Your task to perform on an android device: toggle sleep mode Image 0: 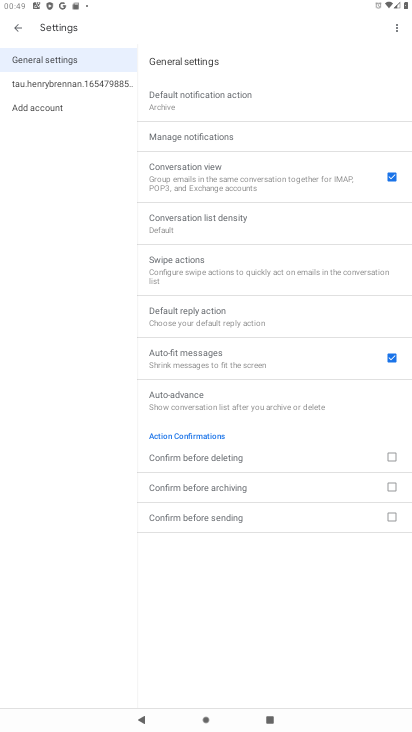
Step 0: press home button
Your task to perform on an android device: toggle sleep mode Image 1: 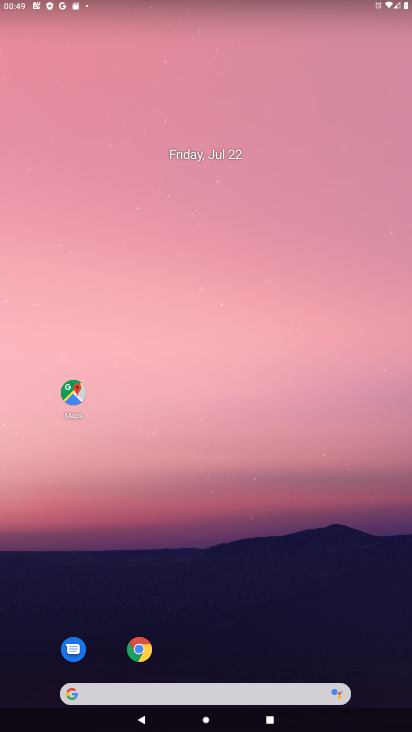
Step 1: drag from (284, 534) to (219, 34)
Your task to perform on an android device: toggle sleep mode Image 2: 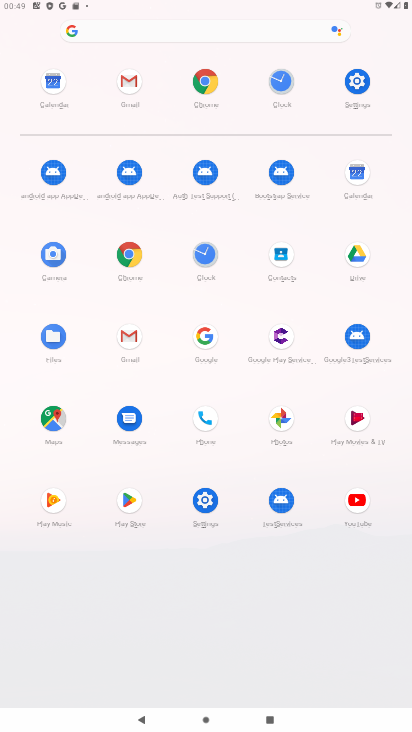
Step 2: click (355, 79)
Your task to perform on an android device: toggle sleep mode Image 3: 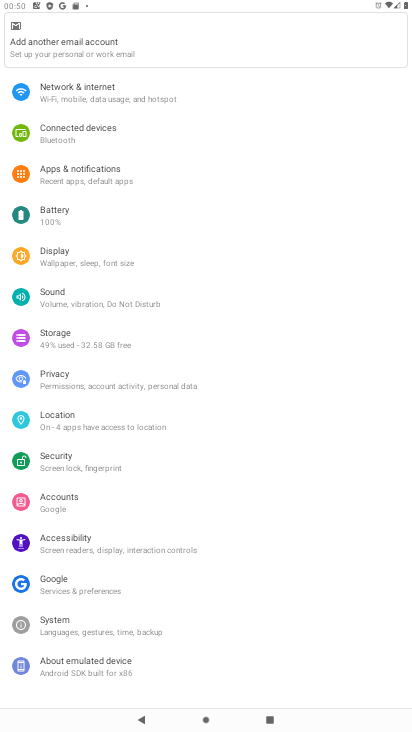
Step 3: click (60, 261)
Your task to perform on an android device: toggle sleep mode Image 4: 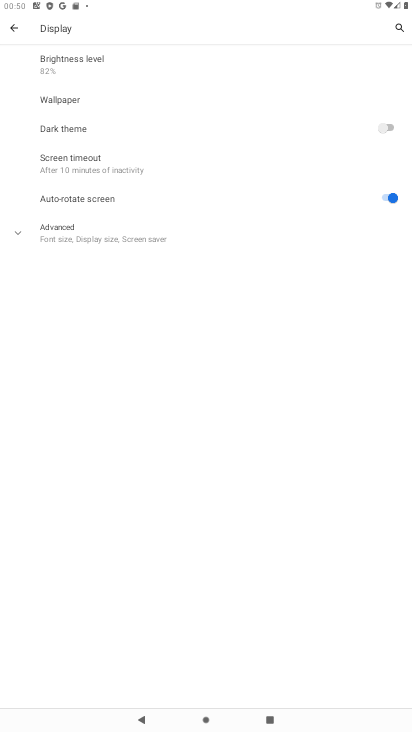
Step 4: click (111, 156)
Your task to perform on an android device: toggle sleep mode Image 5: 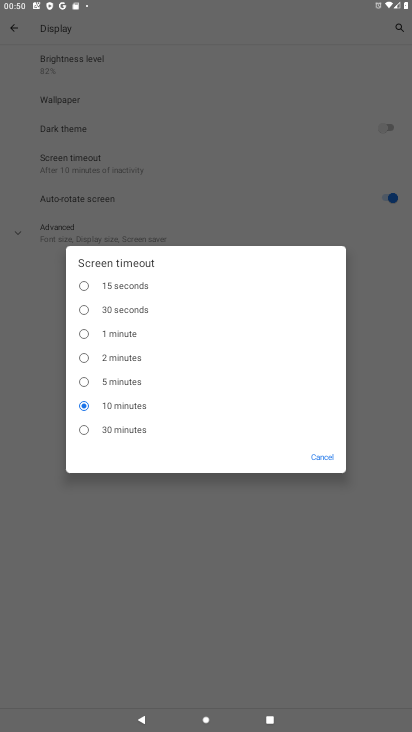
Step 5: click (125, 428)
Your task to perform on an android device: toggle sleep mode Image 6: 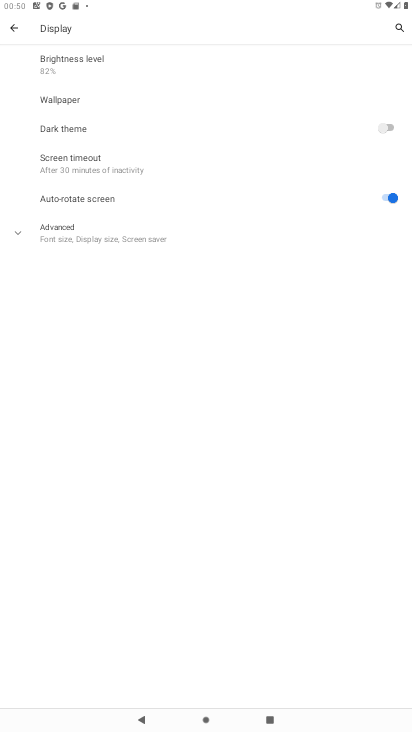
Step 6: task complete